Your task to perform on an android device: Add usb-a to the cart on bestbuy.com, then select checkout. Image 0: 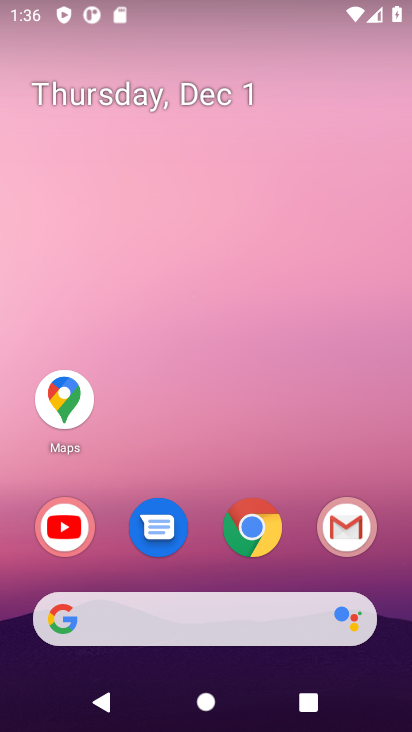
Step 0: click (264, 533)
Your task to perform on an android device: Add usb-a to the cart on bestbuy.com, then select checkout. Image 1: 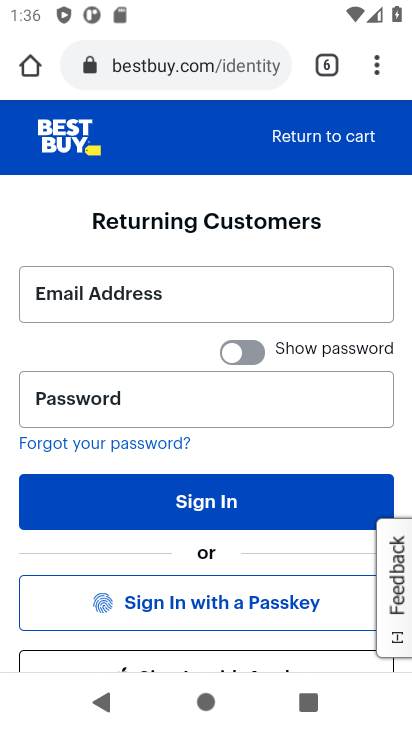
Step 1: press back button
Your task to perform on an android device: Add usb-a to the cart on bestbuy.com, then select checkout. Image 2: 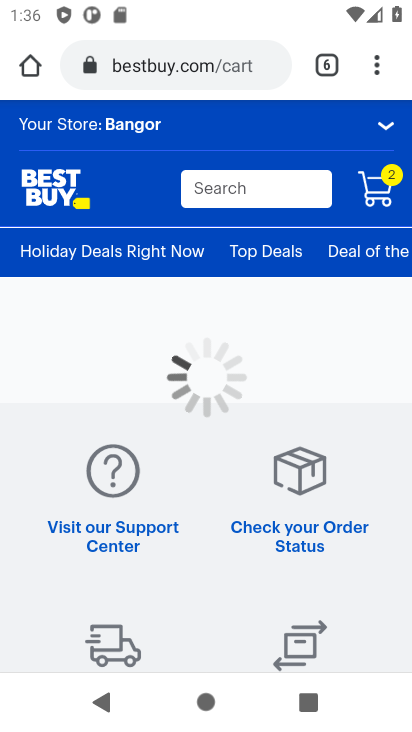
Step 2: click (203, 194)
Your task to perform on an android device: Add usb-a to the cart on bestbuy.com, then select checkout. Image 3: 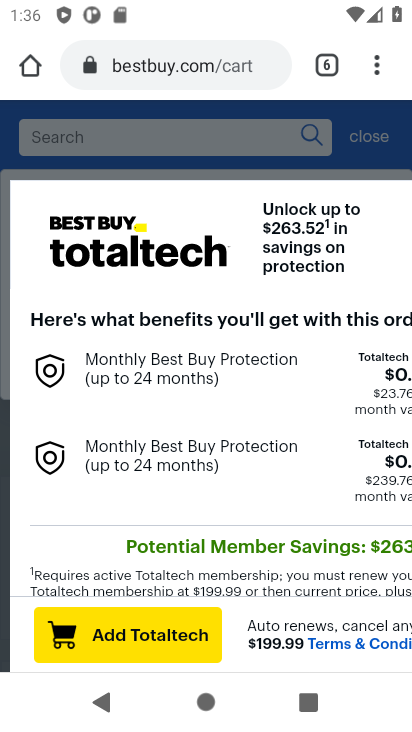
Step 3: type "usb-a"
Your task to perform on an android device: Add usb-a to the cart on bestbuy.com, then select checkout. Image 4: 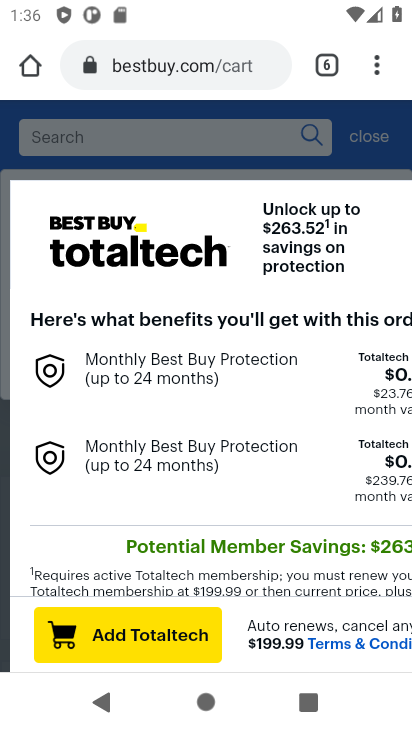
Step 4: click (214, 132)
Your task to perform on an android device: Add usb-a to the cart on bestbuy.com, then select checkout. Image 5: 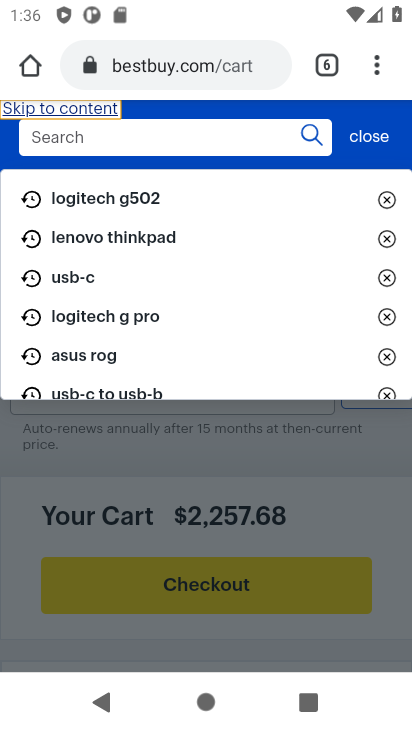
Step 5: click (60, 142)
Your task to perform on an android device: Add usb-a to the cart on bestbuy.com, then select checkout. Image 6: 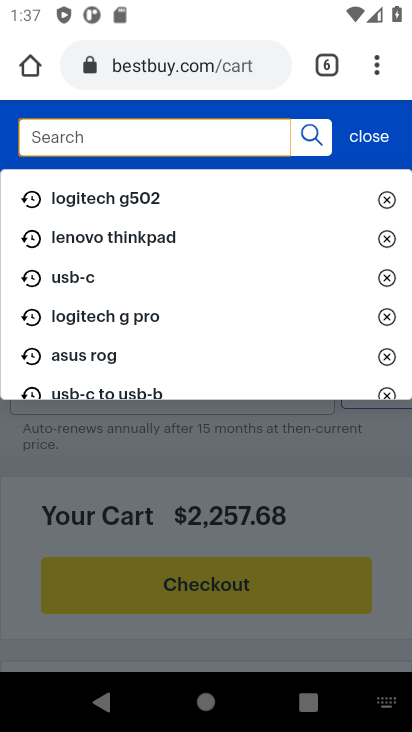
Step 6: type "usb-a"
Your task to perform on an android device: Add usb-a to the cart on bestbuy.com, then select checkout. Image 7: 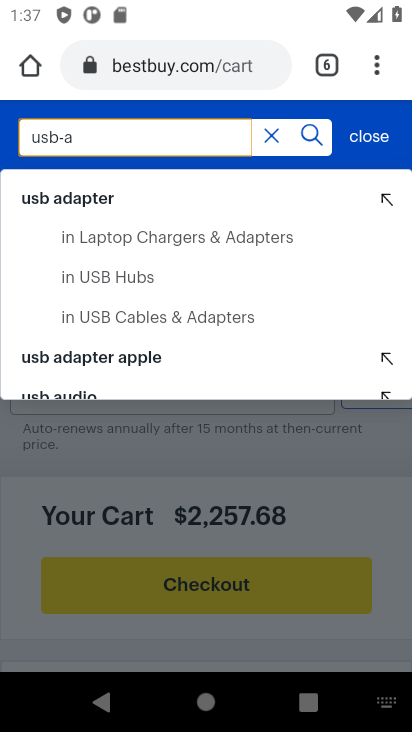
Step 7: click (313, 135)
Your task to perform on an android device: Add usb-a to the cart on bestbuy.com, then select checkout. Image 8: 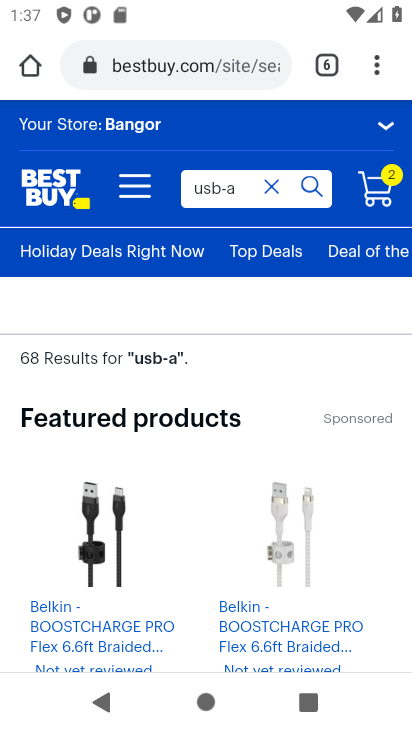
Step 8: drag from (225, 356) to (201, 97)
Your task to perform on an android device: Add usb-a to the cart on bestbuy.com, then select checkout. Image 9: 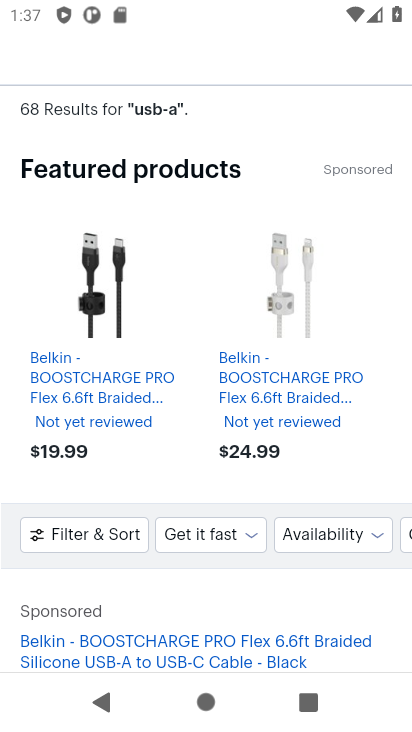
Step 9: drag from (173, 357) to (161, 145)
Your task to perform on an android device: Add usb-a to the cart on bestbuy.com, then select checkout. Image 10: 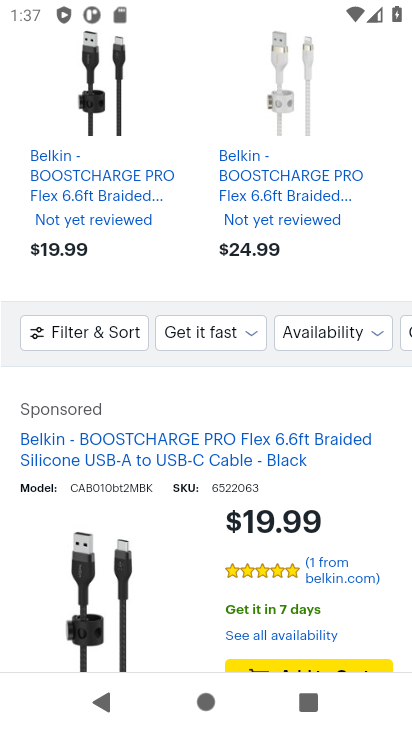
Step 10: drag from (167, 396) to (152, 167)
Your task to perform on an android device: Add usb-a to the cart on bestbuy.com, then select checkout. Image 11: 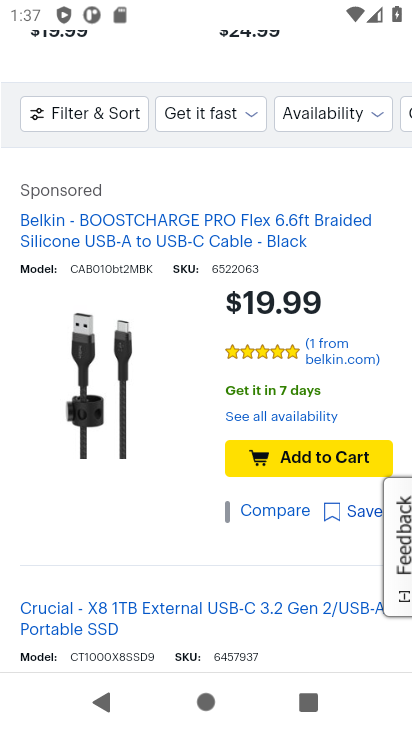
Step 11: click (277, 463)
Your task to perform on an android device: Add usb-a to the cart on bestbuy.com, then select checkout. Image 12: 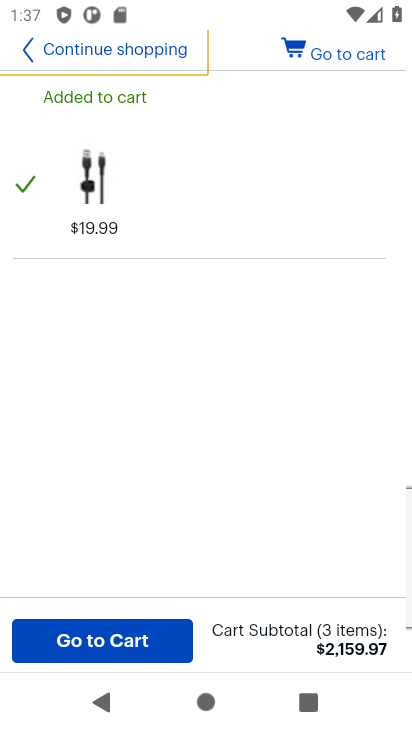
Step 12: click (338, 56)
Your task to perform on an android device: Add usb-a to the cart on bestbuy.com, then select checkout. Image 13: 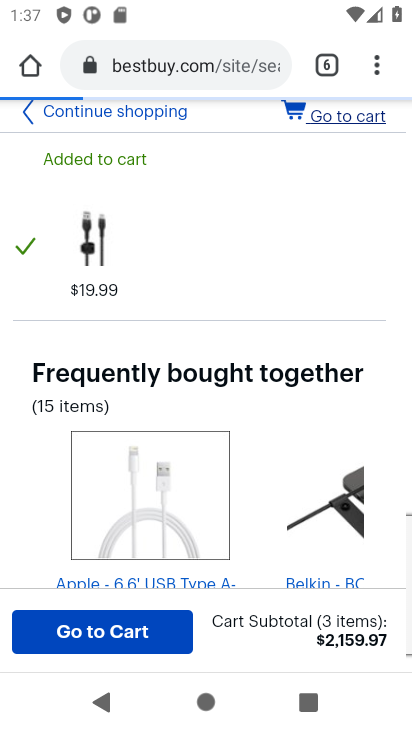
Step 13: drag from (267, 528) to (264, 363)
Your task to perform on an android device: Add usb-a to the cart on bestbuy.com, then select checkout. Image 14: 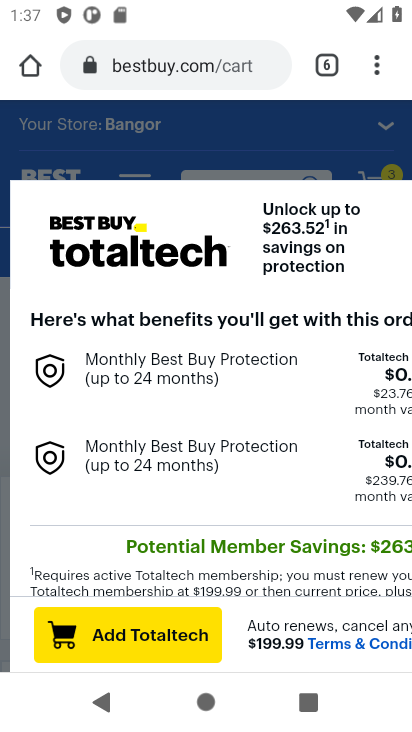
Step 14: click (226, 155)
Your task to perform on an android device: Add usb-a to the cart on bestbuy.com, then select checkout. Image 15: 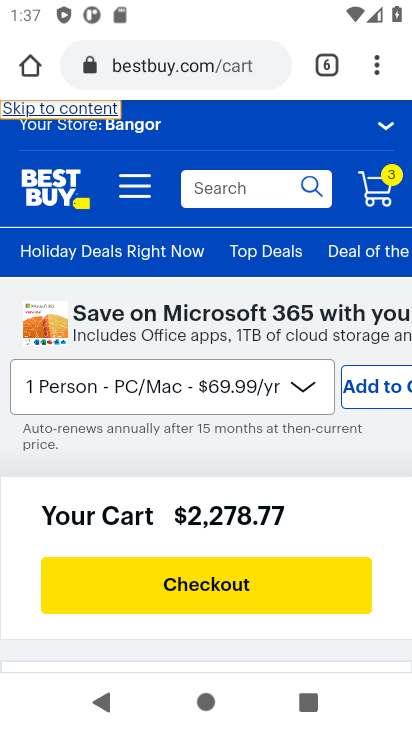
Step 15: click (187, 576)
Your task to perform on an android device: Add usb-a to the cart on bestbuy.com, then select checkout. Image 16: 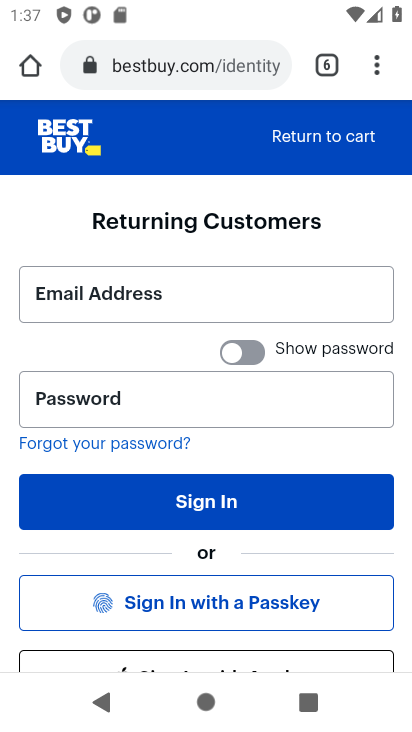
Step 16: task complete